Your task to perform on an android device: turn on notifications settings in the gmail app Image 0: 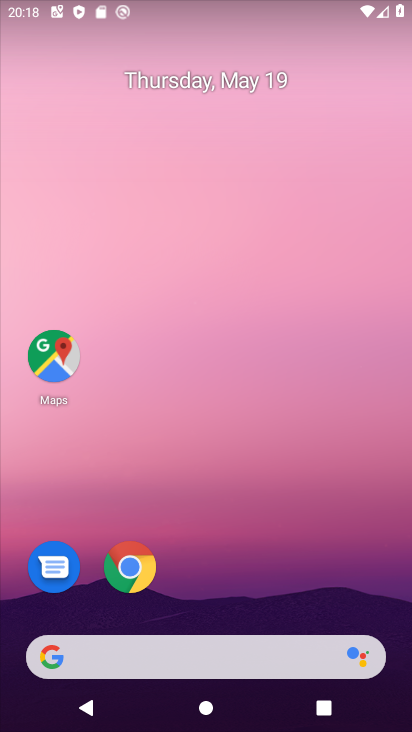
Step 0: drag from (230, 593) to (298, 96)
Your task to perform on an android device: turn on notifications settings in the gmail app Image 1: 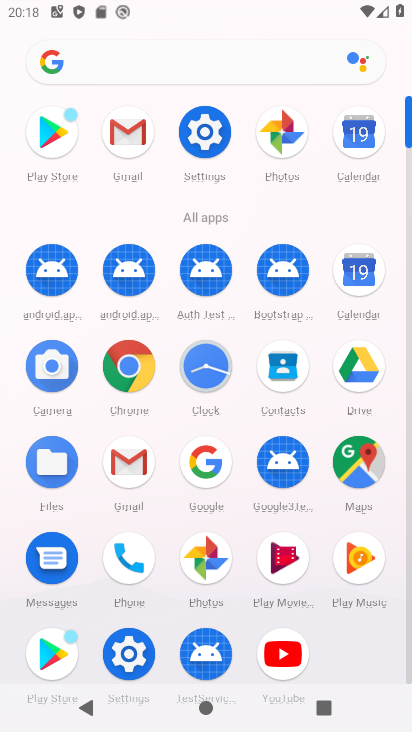
Step 1: click (122, 468)
Your task to perform on an android device: turn on notifications settings in the gmail app Image 2: 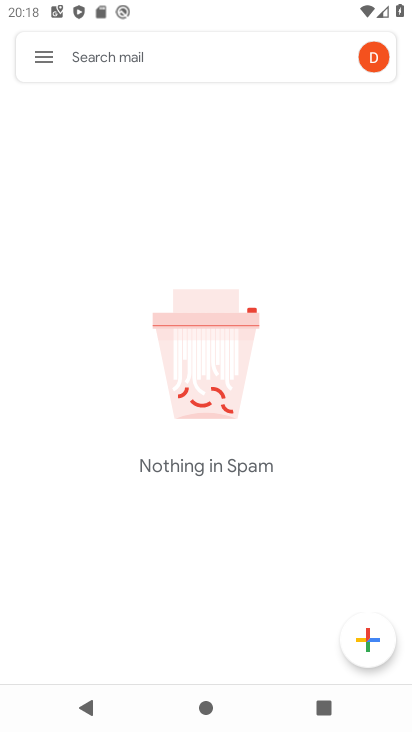
Step 2: click (46, 51)
Your task to perform on an android device: turn on notifications settings in the gmail app Image 3: 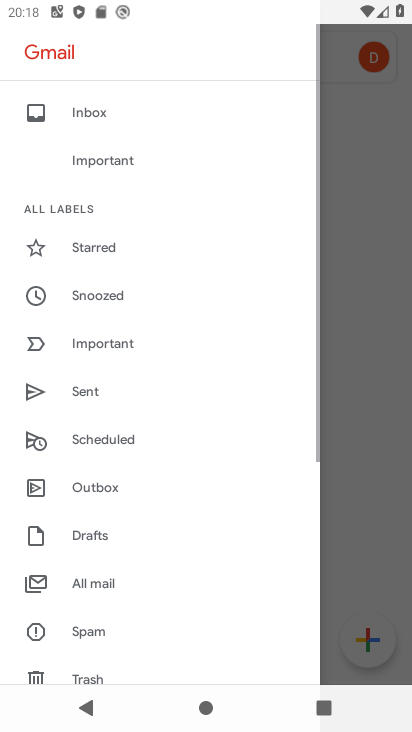
Step 3: drag from (97, 590) to (133, 250)
Your task to perform on an android device: turn on notifications settings in the gmail app Image 4: 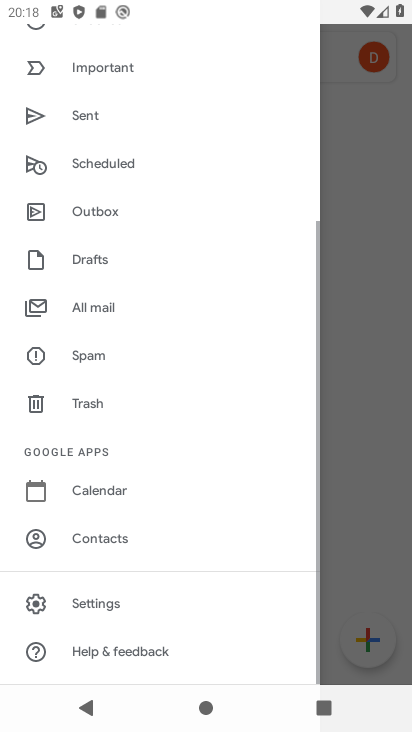
Step 4: click (94, 605)
Your task to perform on an android device: turn on notifications settings in the gmail app Image 5: 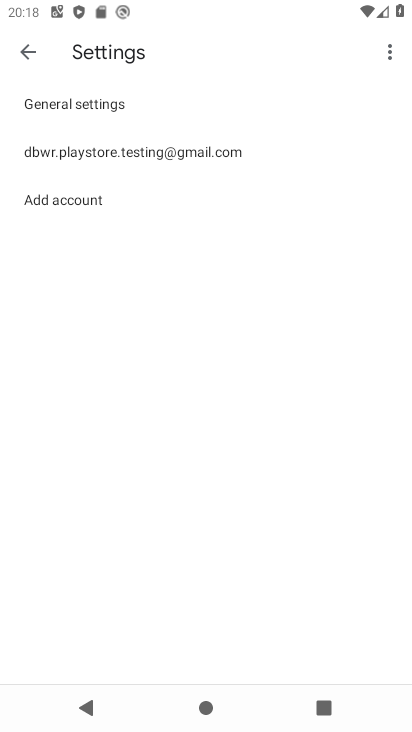
Step 5: click (116, 98)
Your task to perform on an android device: turn on notifications settings in the gmail app Image 6: 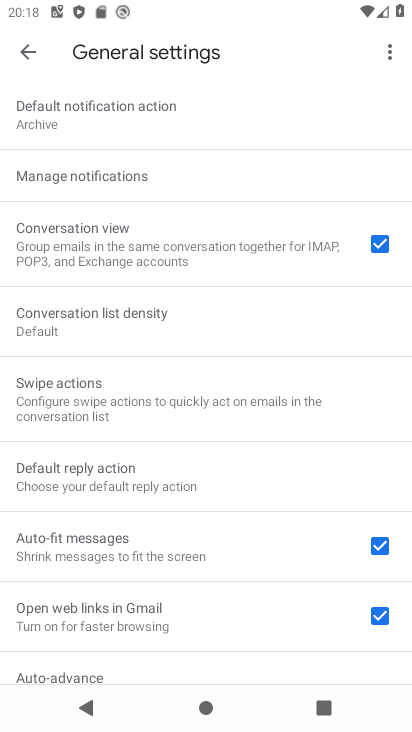
Step 6: click (107, 166)
Your task to perform on an android device: turn on notifications settings in the gmail app Image 7: 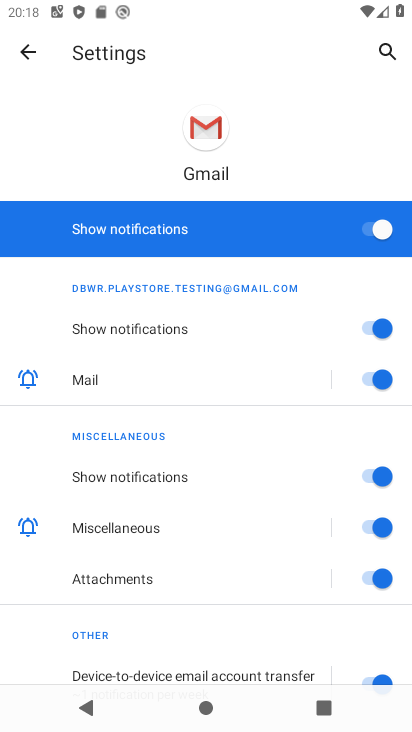
Step 7: task complete